Your task to perform on an android device: open app "Yahoo Mail" (install if not already installed) Image 0: 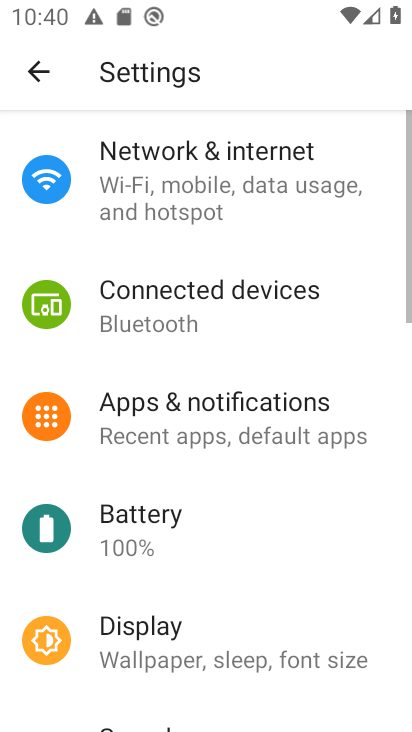
Step 0: press home button
Your task to perform on an android device: open app "Yahoo Mail" (install if not already installed) Image 1: 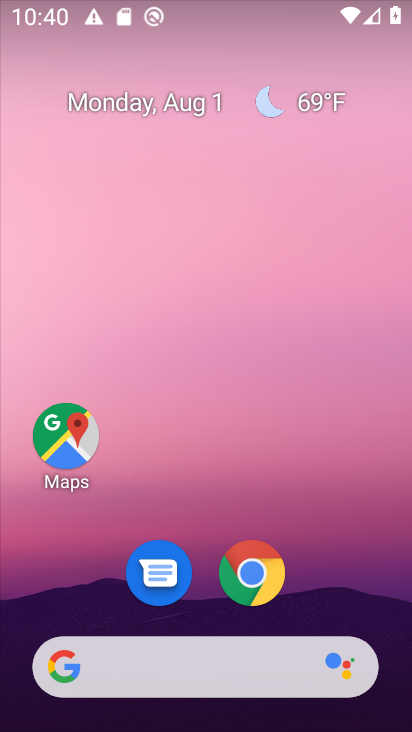
Step 1: drag from (344, 544) to (332, 87)
Your task to perform on an android device: open app "Yahoo Mail" (install if not already installed) Image 2: 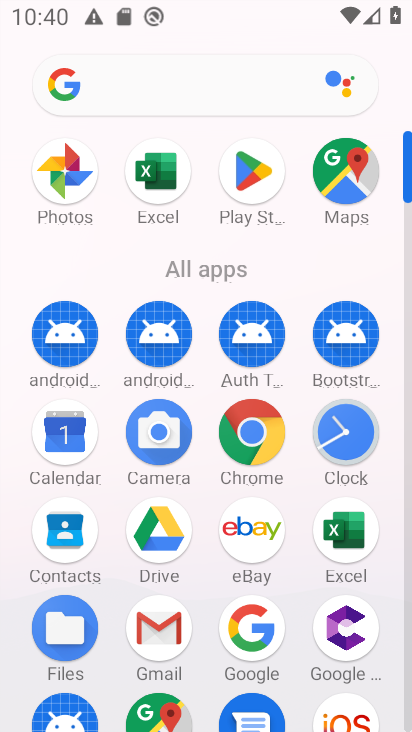
Step 2: drag from (386, 565) to (386, 327)
Your task to perform on an android device: open app "Yahoo Mail" (install if not already installed) Image 3: 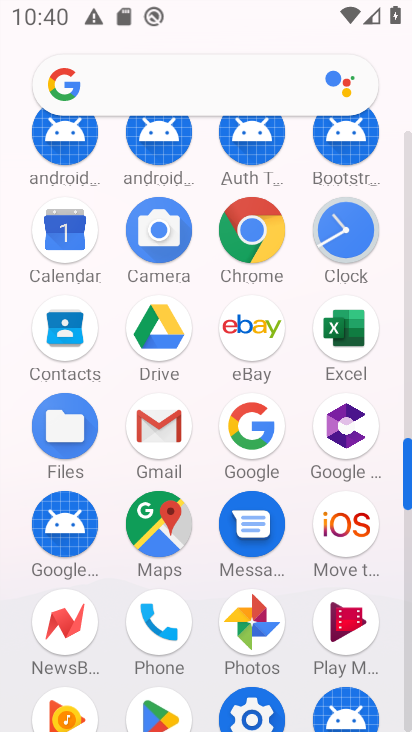
Step 3: drag from (388, 596) to (389, 366)
Your task to perform on an android device: open app "Yahoo Mail" (install if not already installed) Image 4: 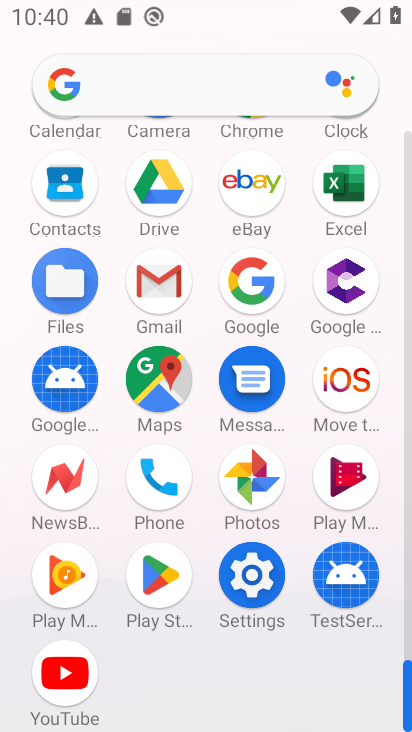
Step 4: click (155, 580)
Your task to perform on an android device: open app "Yahoo Mail" (install if not already installed) Image 5: 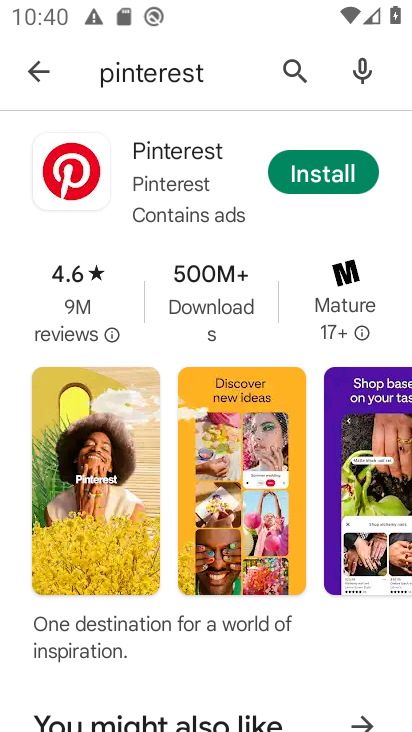
Step 5: click (291, 61)
Your task to perform on an android device: open app "Yahoo Mail" (install if not already installed) Image 6: 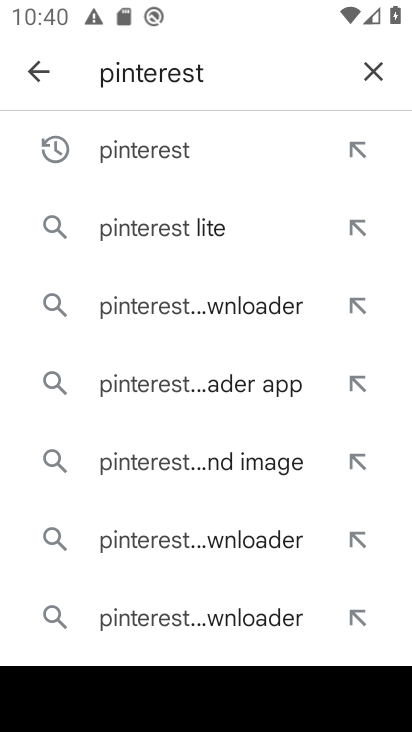
Step 6: click (363, 69)
Your task to perform on an android device: open app "Yahoo Mail" (install if not already installed) Image 7: 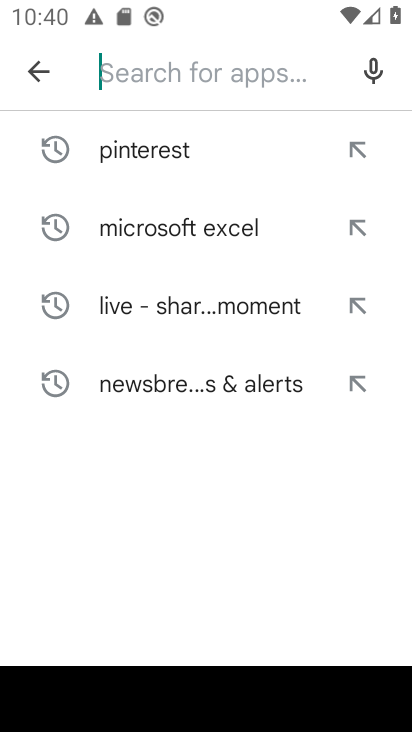
Step 7: type "yahoo mail"
Your task to perform on an android device: open app "Yahoo Mail" (install if not already installed) Image 8: 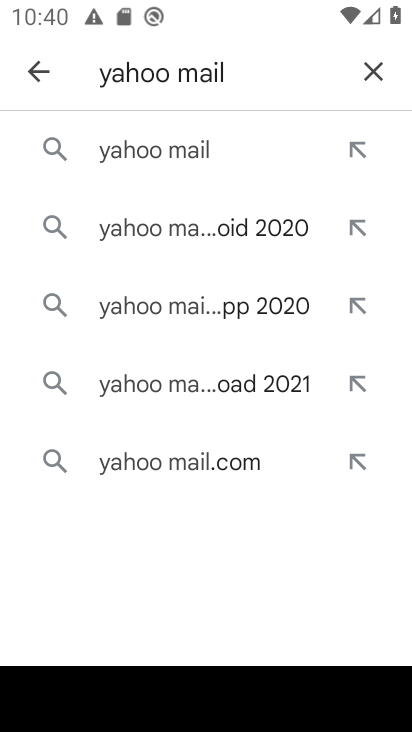
Step 8: click (205, 169)
Your task to perform on an android device: open app "Yahoo Mail" (install if not already installed) Image 9: 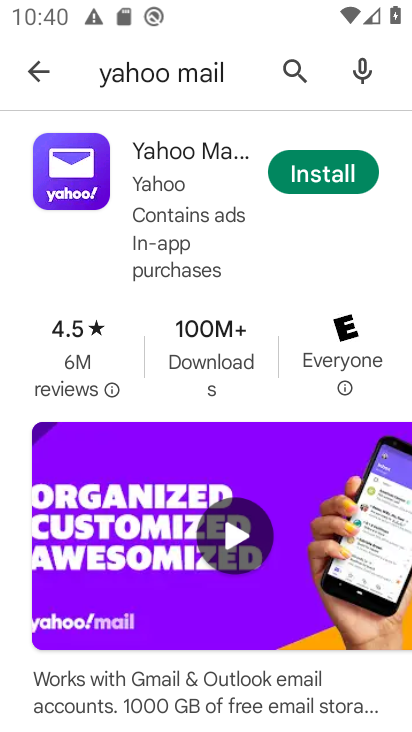
Step 9: click (327, 177)
Your task to perform on an android device: open app "Yahoo Mail" (install if not already installed) Image 10: 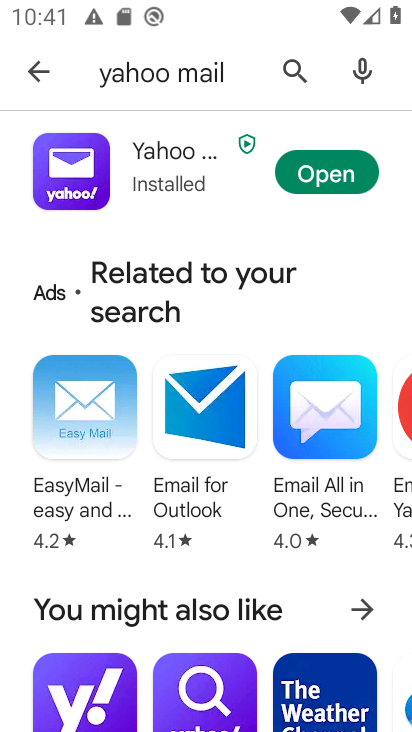
Step 10: task complete